Your task to perform on an android device: snooze an email in the gmail app Image 0: 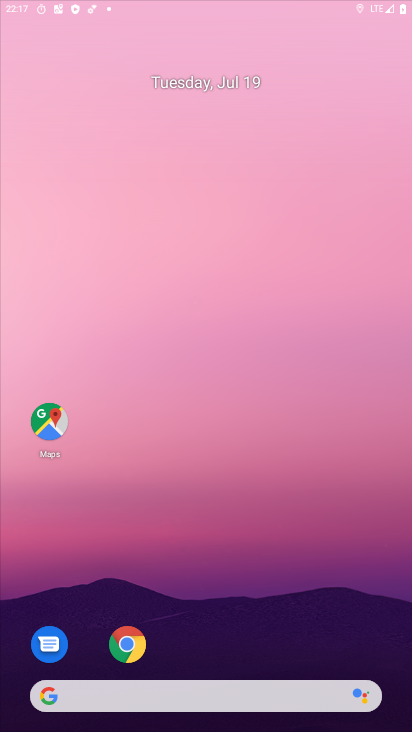
Step 0: press home button
Your task to perform on an android device: snooze an email in the gmail app Image 1: 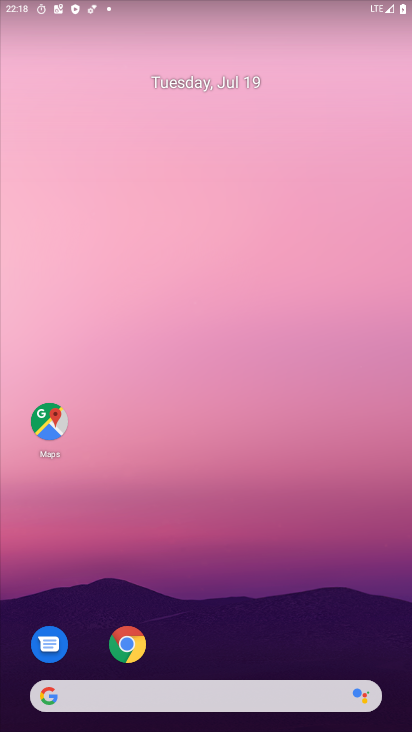
Step 1: drag from (292, 640) to (17, 427)
Your task to perform on an android device: snooze an email in the gmail app Image 2: 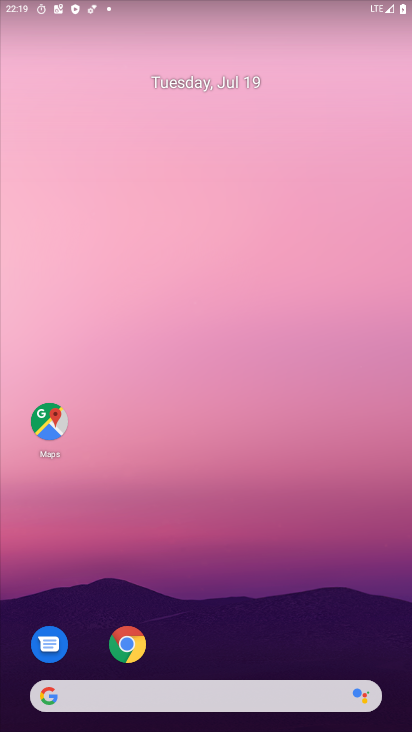
Step 2: drag from (355, 692) to (270, 154)
Your task to perform on an android device: snooze an email in the gmail app Image 3: 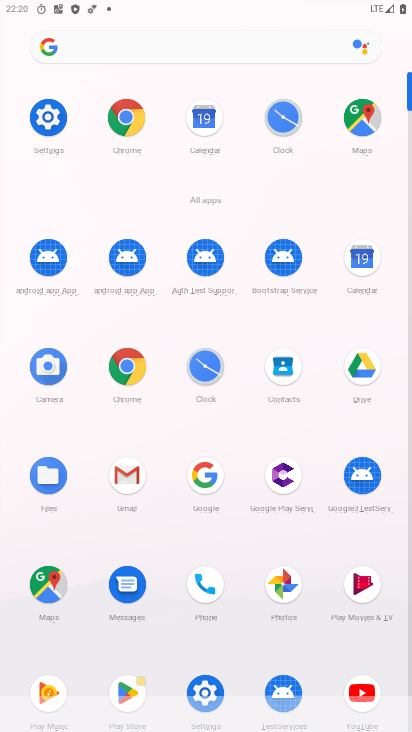
Step 3: click (146, 490)
Your task to perform on an android device: snooze an email in the gmail app Image 4: 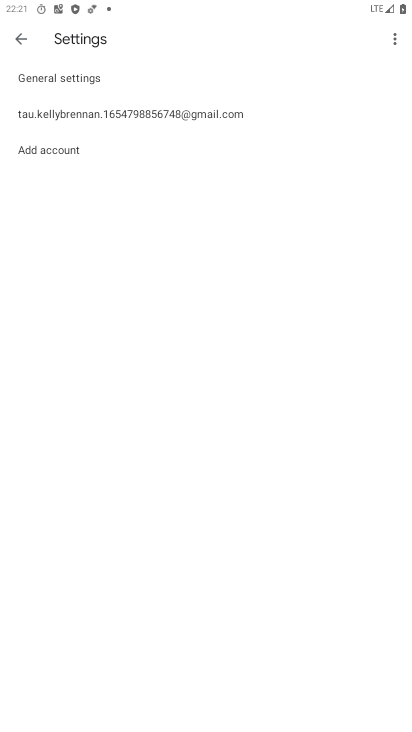
Step 4: click (13, 40)
Your task to perform on an android device: snooze an email in the gmail app Image 5: 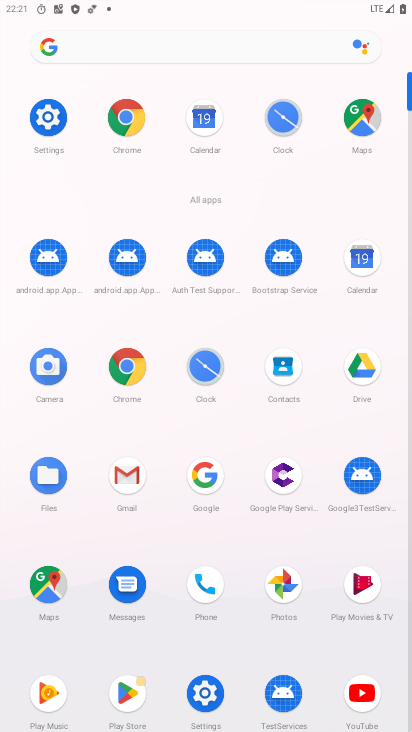
Step 5: click (138, 477)
Your task to perform on an android device: snooze an email in the gmail app Image 6: 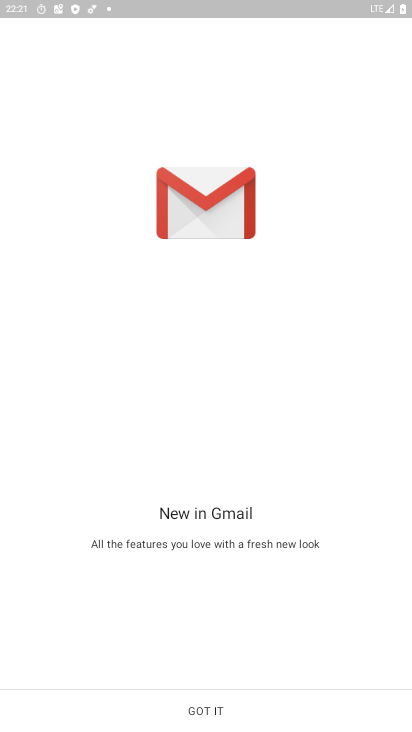
Step 6: click (209, 715)
Your task to perform on an android device: snooze an email in the gmail app Image 7: 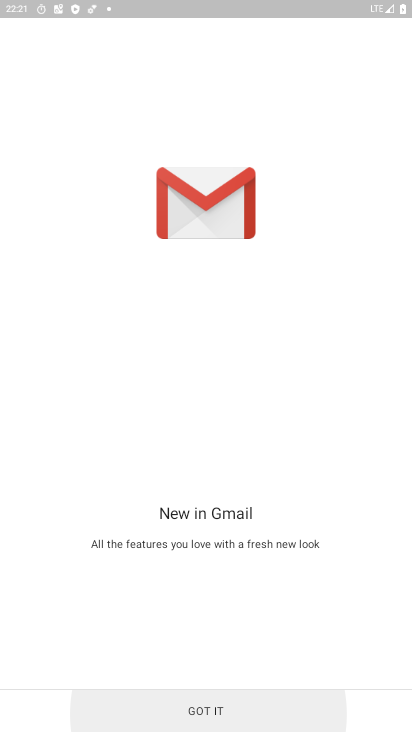
Step 7: click (209, 715)
Your task to perform on an android device: snooze an email in the gmail app Image 8: 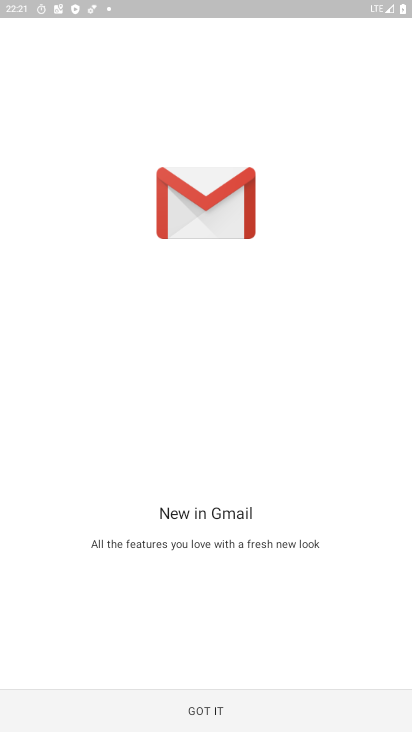
Step 8: click (209, 715)
Your task to perform on an android device: snooze an email in the gmail app Image 9: 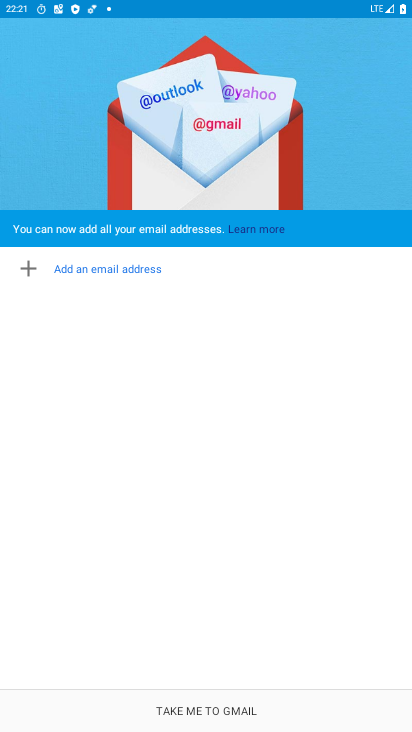
Step 9: click (209, 715)
Your task to perform on an android device: snooze an email in the gmail app Image 10: 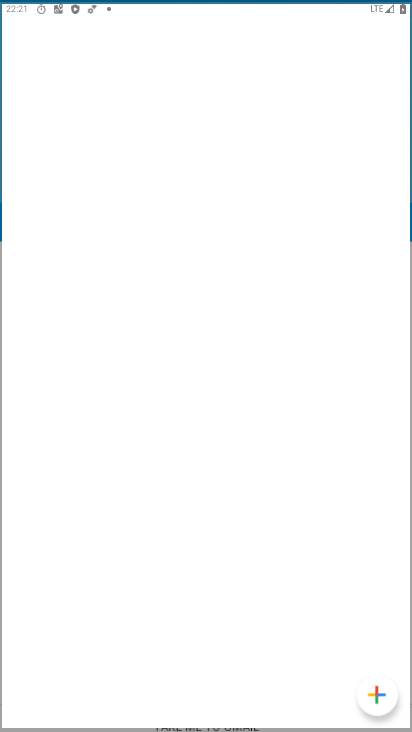
Step 10: click (209, 715)
Your task to perform on an android device: snooze an email in the gmail app Image 11: 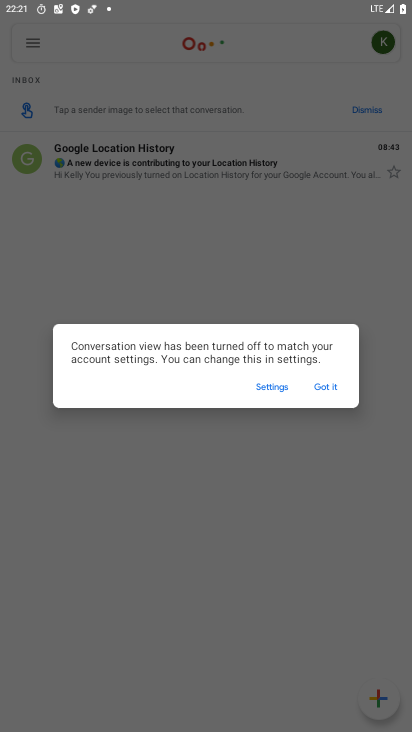
Step 11: click (314, 380)
Your task to perform on an android device: snooze an email in the gmail app Image 12: 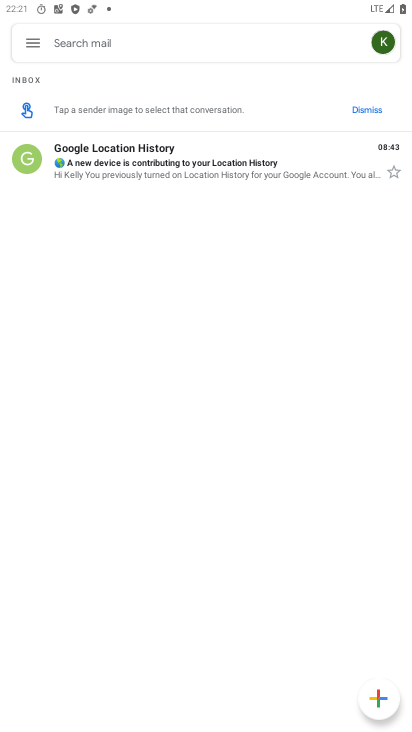
Step 12: click (293, 161)
Your task to perform on an android device: snooze an email in the gmail app Image 13: 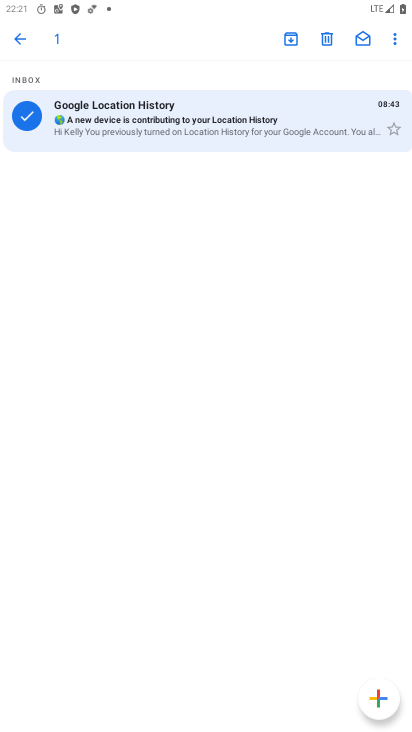
Step 13: click (392, 42)
Your task to perform on an android device: snooze an email in the gmail app Image 14: 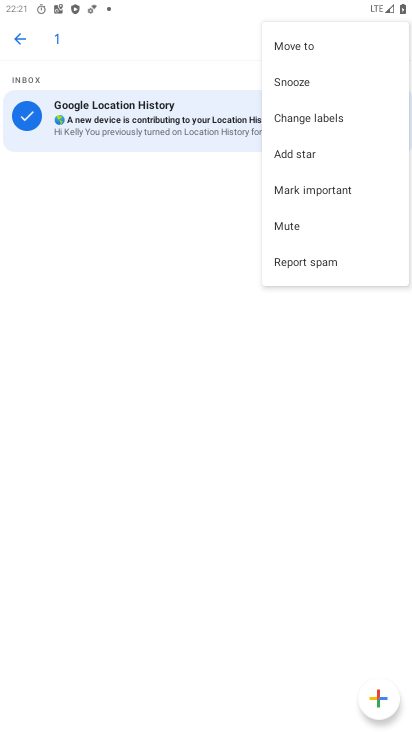
Step 14: click (295, 91)
Your task to perform on an android device: snooze an email in the gmail app Image 15: 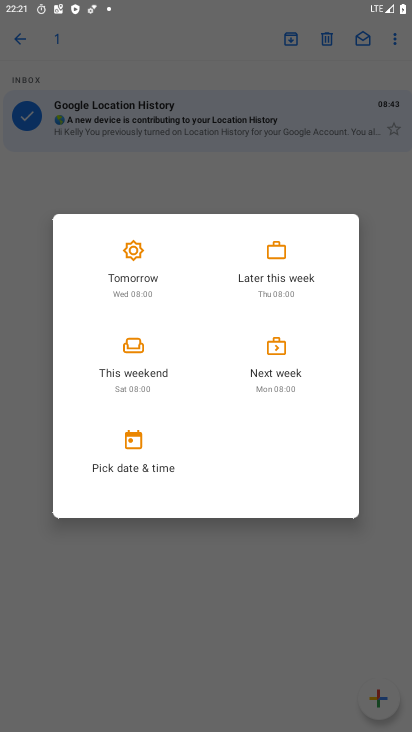
Step 15: click (270, 285)
Your task to perform on an android device: snooze an email in the gmail app Image 16: 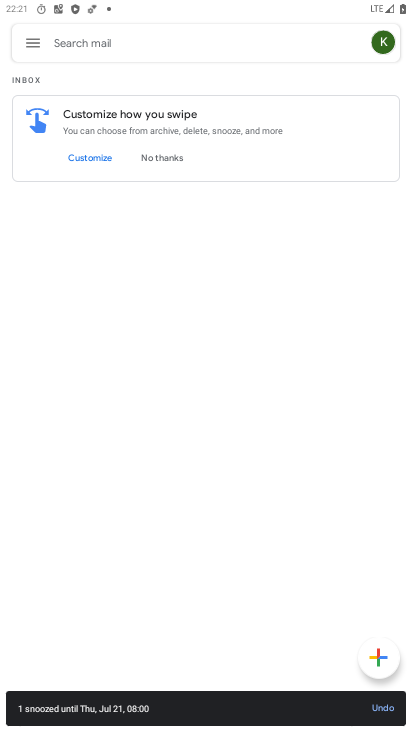
Step 16: task complete